Your task to perform on an android device: turn off picture-in-picture Image 0: 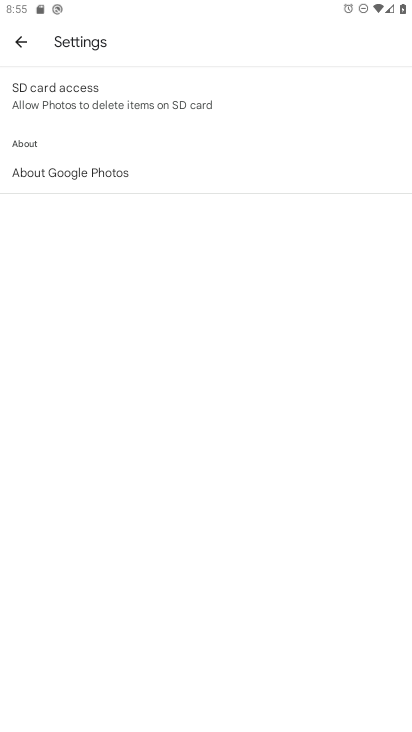
Step 0: press home button
Your task to perform on an android device: turn off picture-in-picture Image 1: 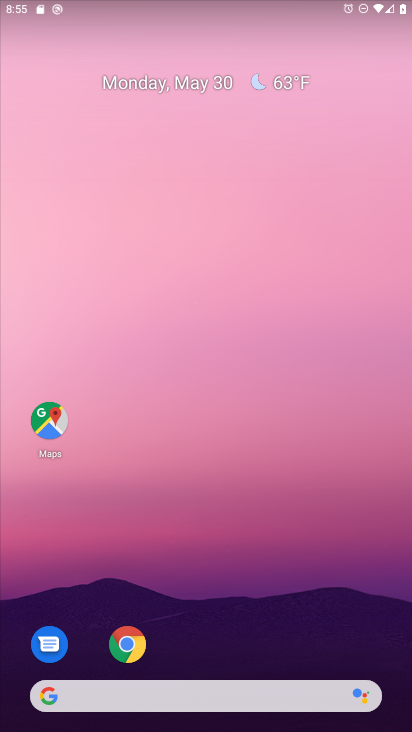
Step 1: click (121, 650)
Your task to perform on an android device: turn off picture-in-picture Image 2: 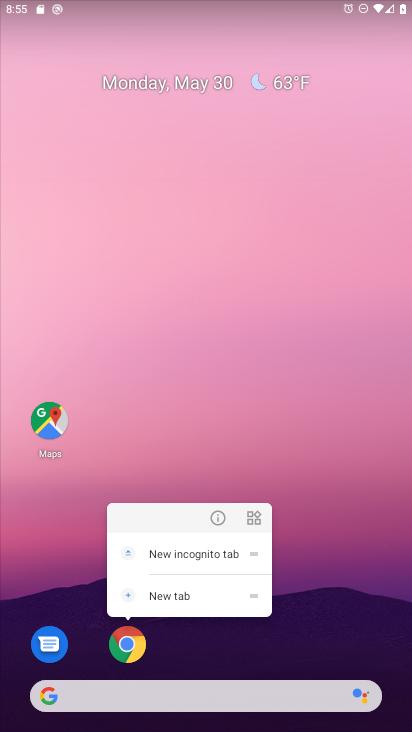
Step 2: click (217, 518)
Your task to perform on an android device: turn off picture-in-picture Image 3: 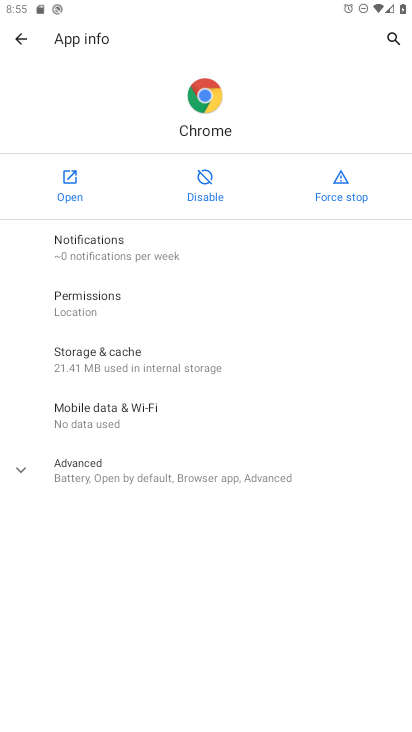
Step 3: click (71, 478)
Your task to perform on an android device: turn off picture-in-picture Image 4: 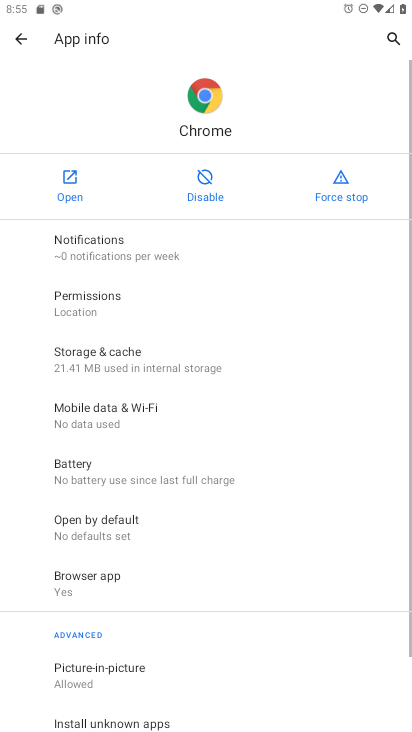
Step 4: drag from (233, 584) to (260, 196)
Your task to perform on an android device: turn off picture-in-picture Image 5: 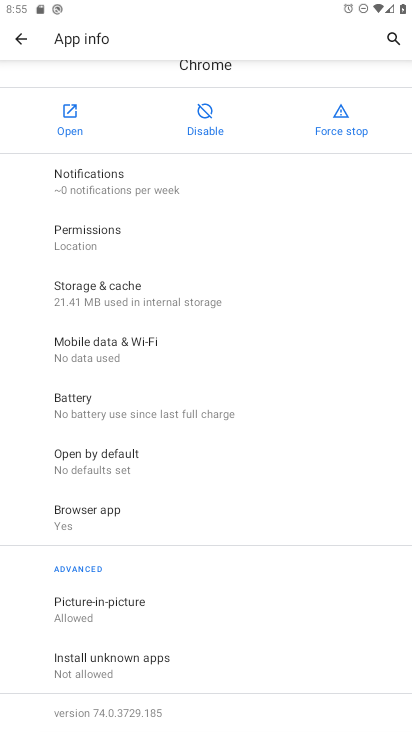
Step 5: click (102, 612)
Your task to perform on an android device: turn off picture-in-picture Image 6: 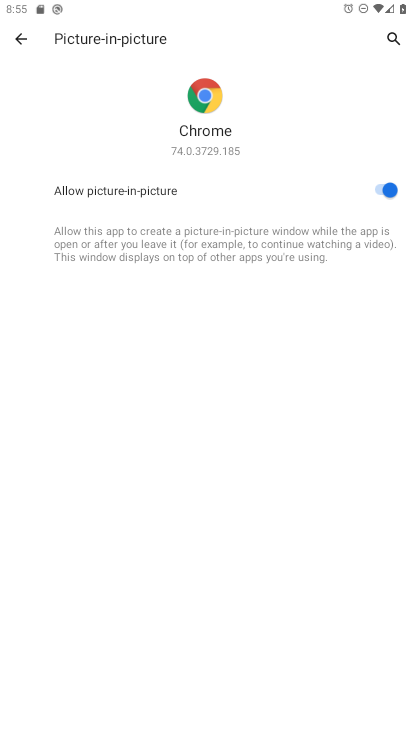
Step 6: click (389, 189)
Your task to perform on an android device: turn off picture-in-picture Image 7: 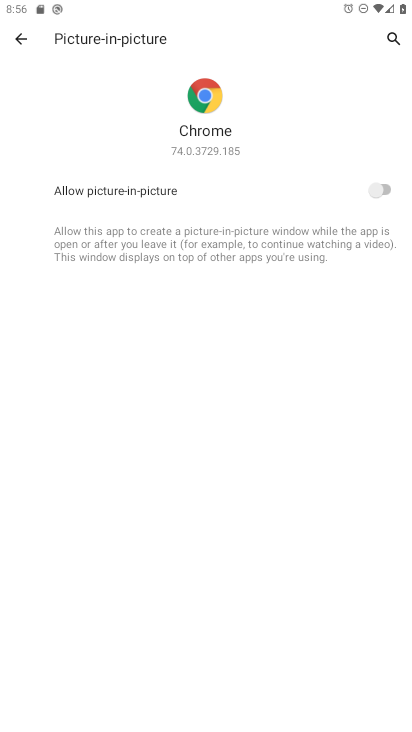
Step 7: task complete